Your task to perform on an android device: toggle sleep mode Image 0: 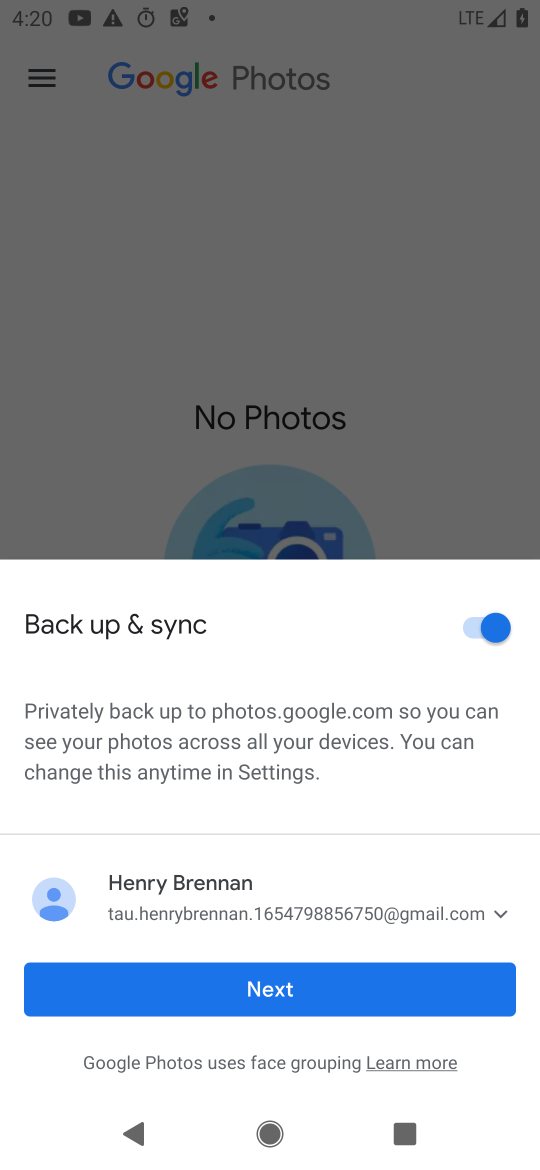
Step 0: press home button
Your task to perform on an android device: toggle sleep mode Image 1: 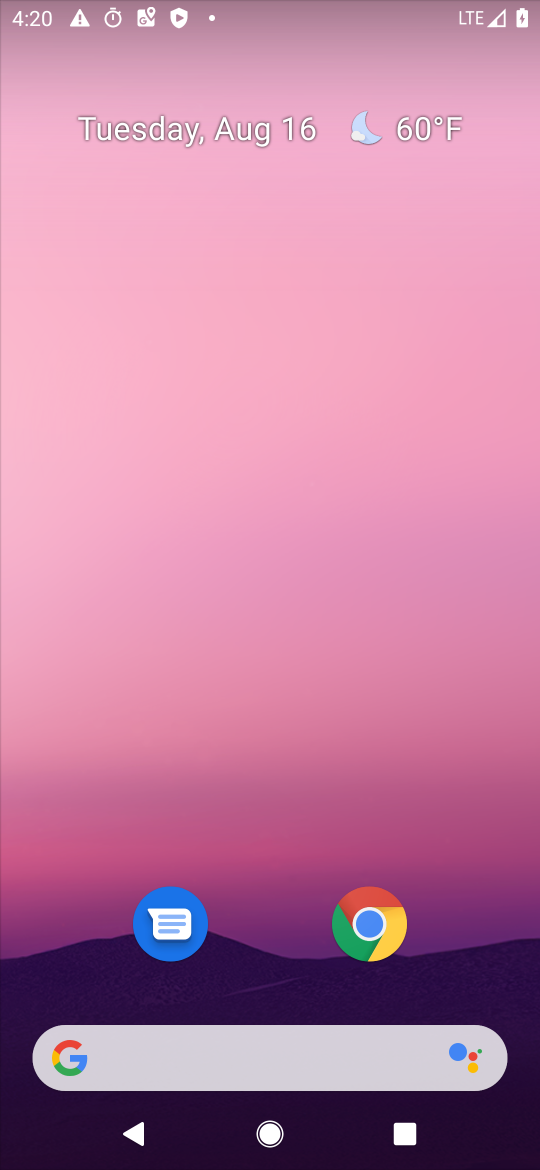
Step 1: drag from (252, 991) to (79, 9)
Your task to perform on an android device: toggle sleep mode Image 2: 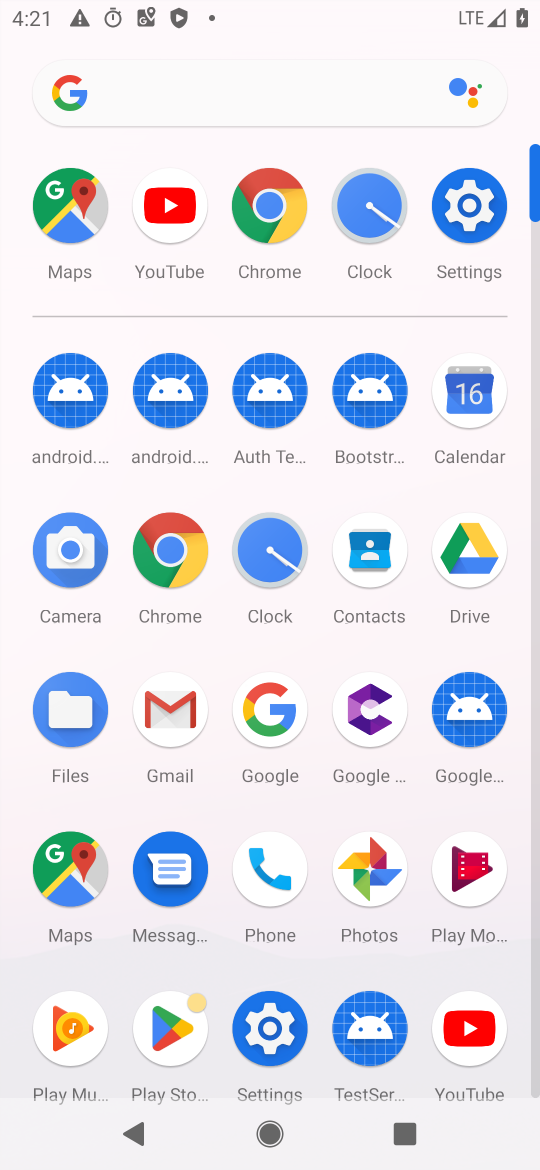
Step 2: click (451, 214)
Your task to perform on an android device: toggle sleep mode Image 3: 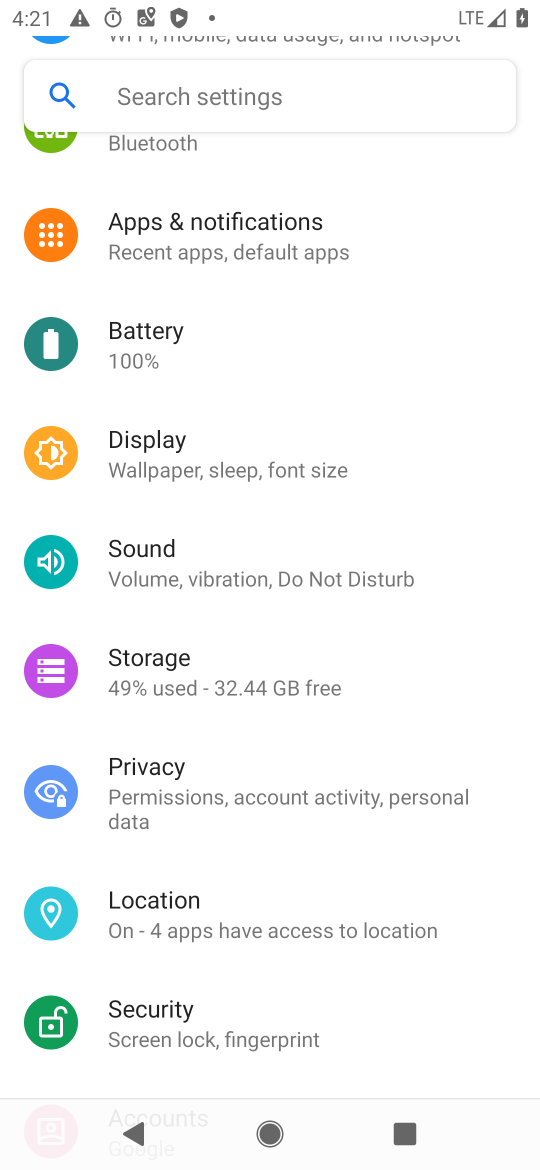
Step 3: task complete